Your task to perform on an android device: Open Yahoo.com Image 0: 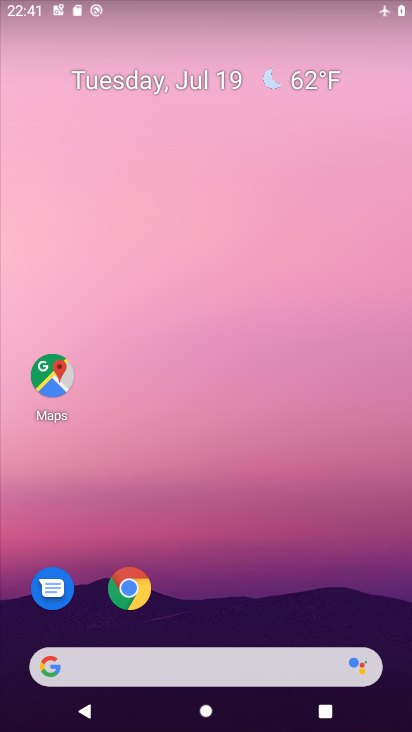
Step 0: click (121, 594)
Your task to perform on an android device: Open Yahoo.com Image 1: 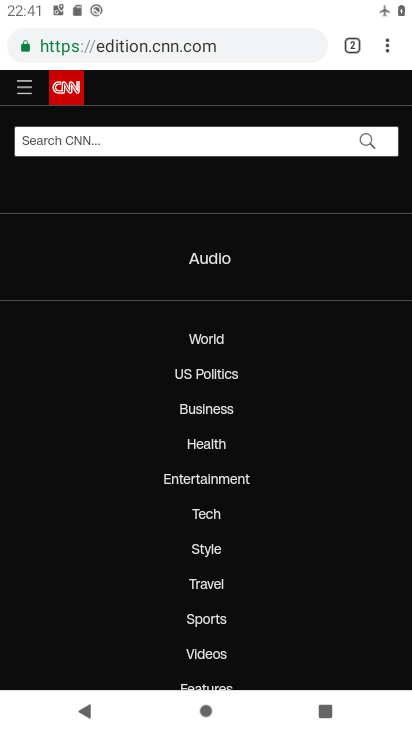
Step 1: click (163, 43)
Your task to perform on an android device: Open Yahoo.com Image 2: 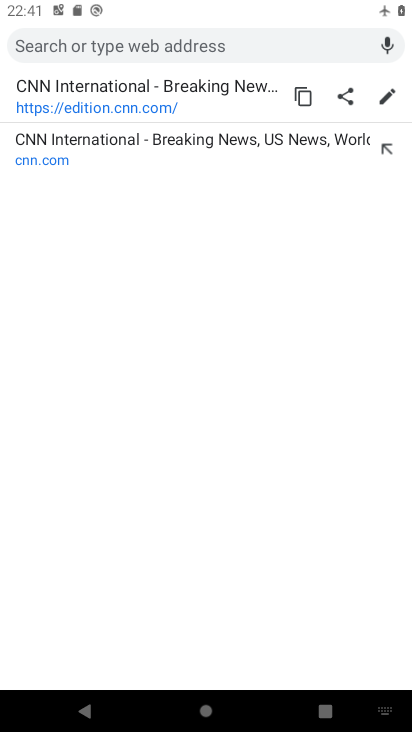
Step 2: type "www.yahoo.com"
Your task to perform on an android device: Open Yahoo.com Image 3: 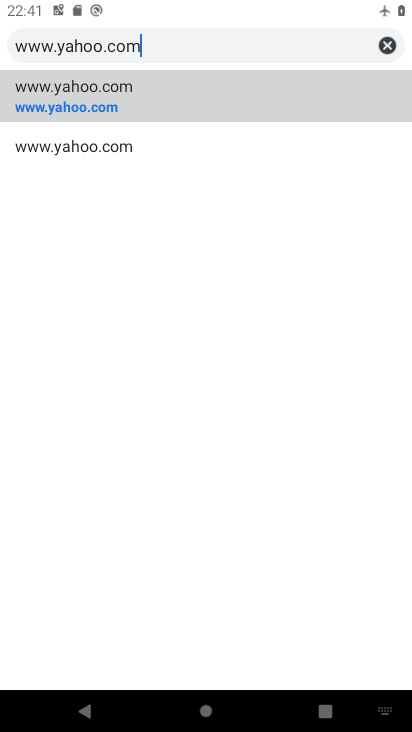
Step 3: click (64, 105)
Your task to perform on an android device: Open Yahoo.com Image 4: 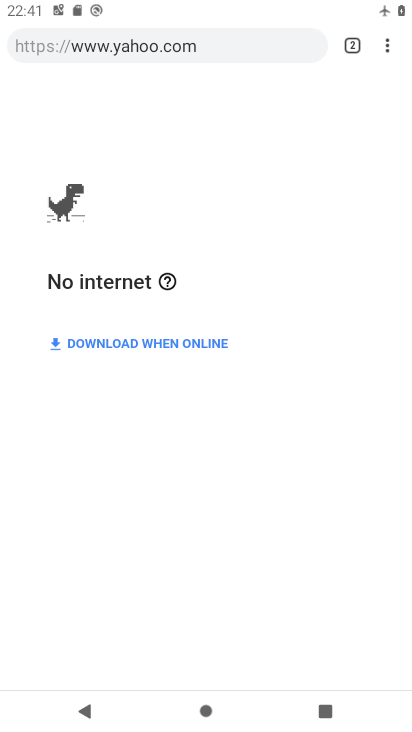
Step 4: task complete